Your task to perform on an android device: Open Reddit.com Image 0: 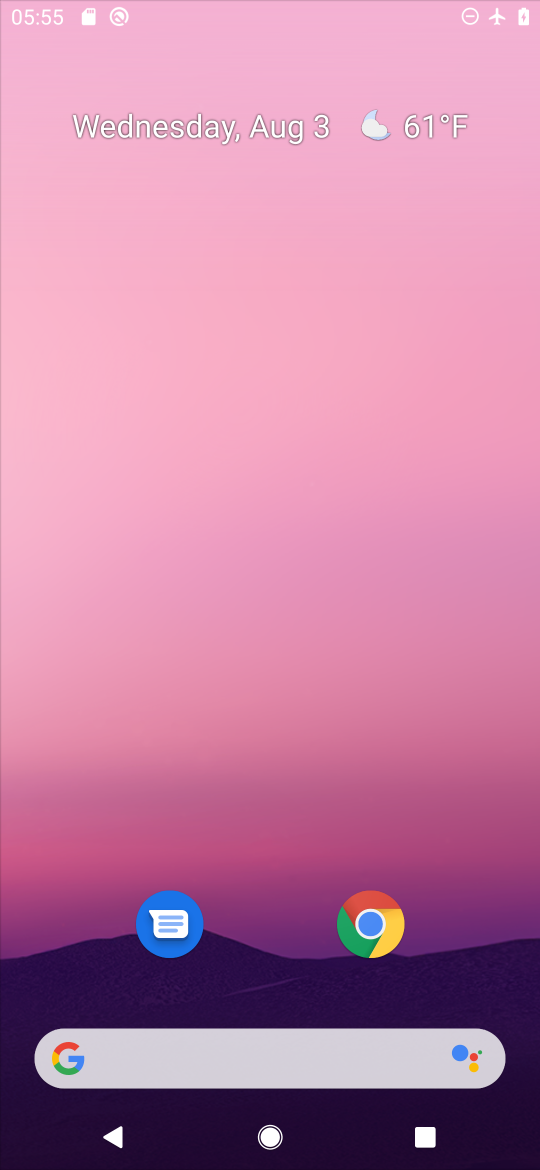
Step 0: press back button
Your task to perform on an android device: Open Reddit.com Image 1: 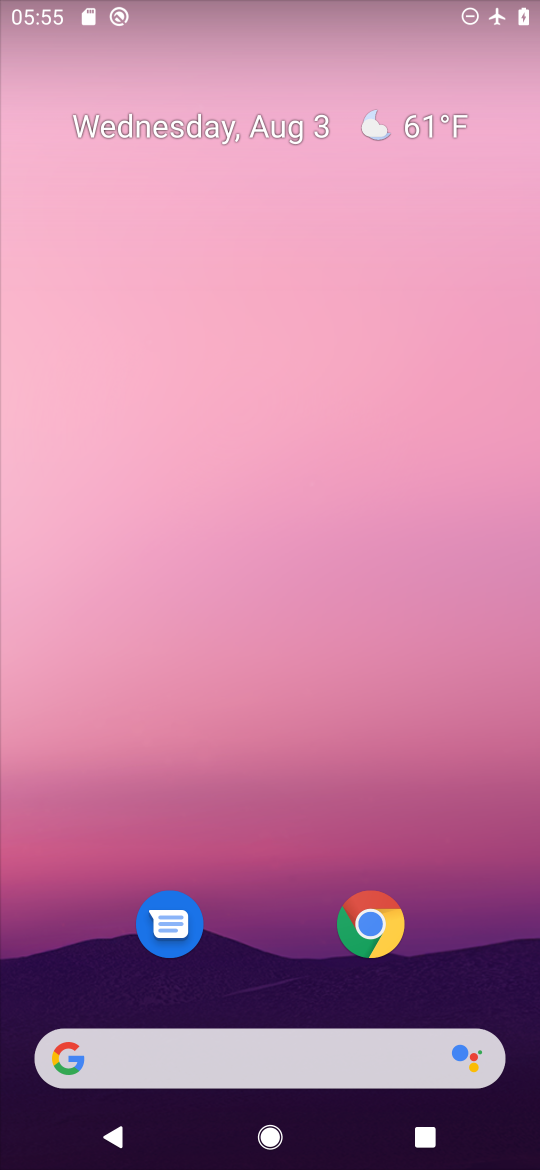
Step 1: click (361, 889)
Your task to perform on an android device: Open Reddit.com Image 2: 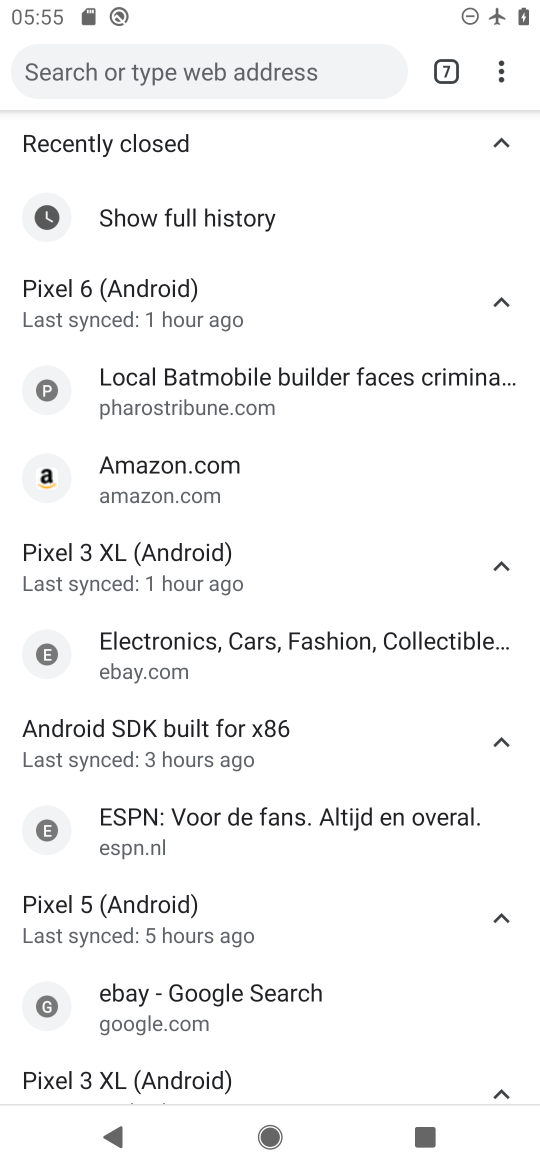
Step 2: click (442, 73)
Your task to perform on an android device: Open Reddit.com Image 3: 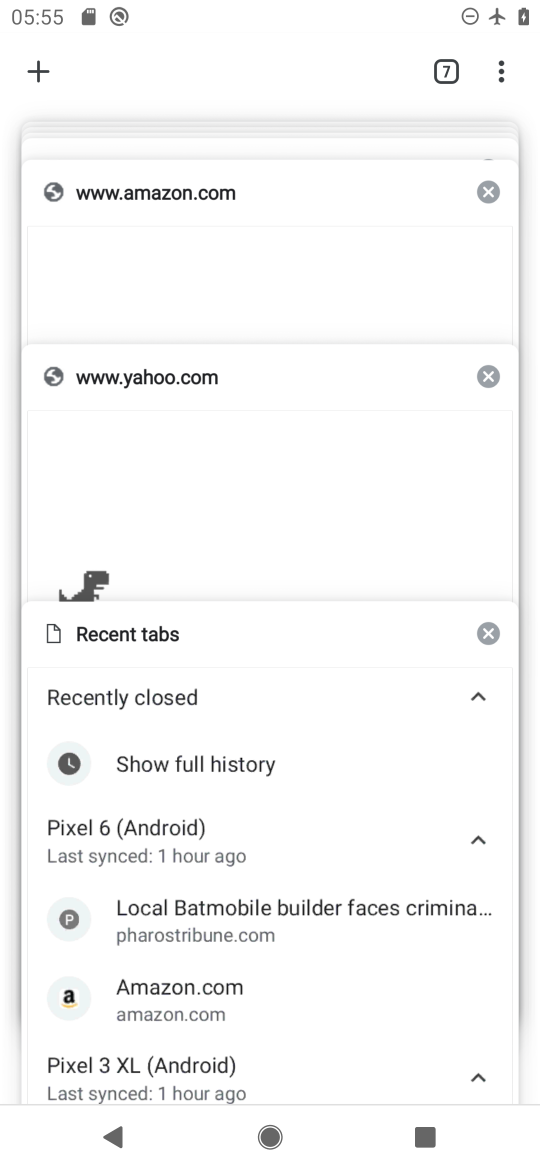
Step 3: click (33, 65)
Your task to perform on an android device: Open Reddit.com Image 4: 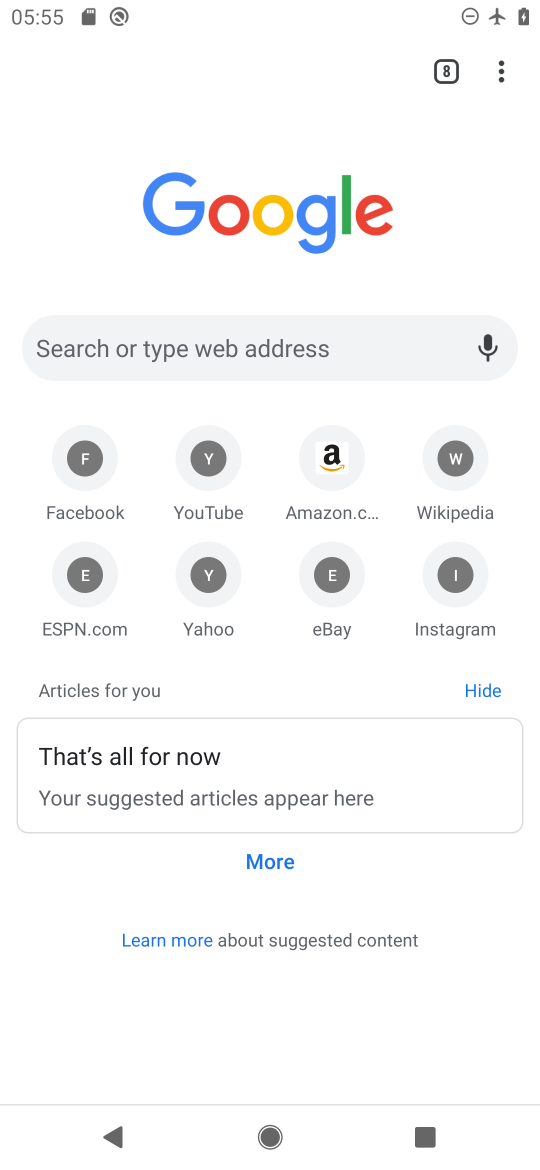
Step 4: click (232, 349)
Your task to perform on an android device: Open Reddit.com Image 5: 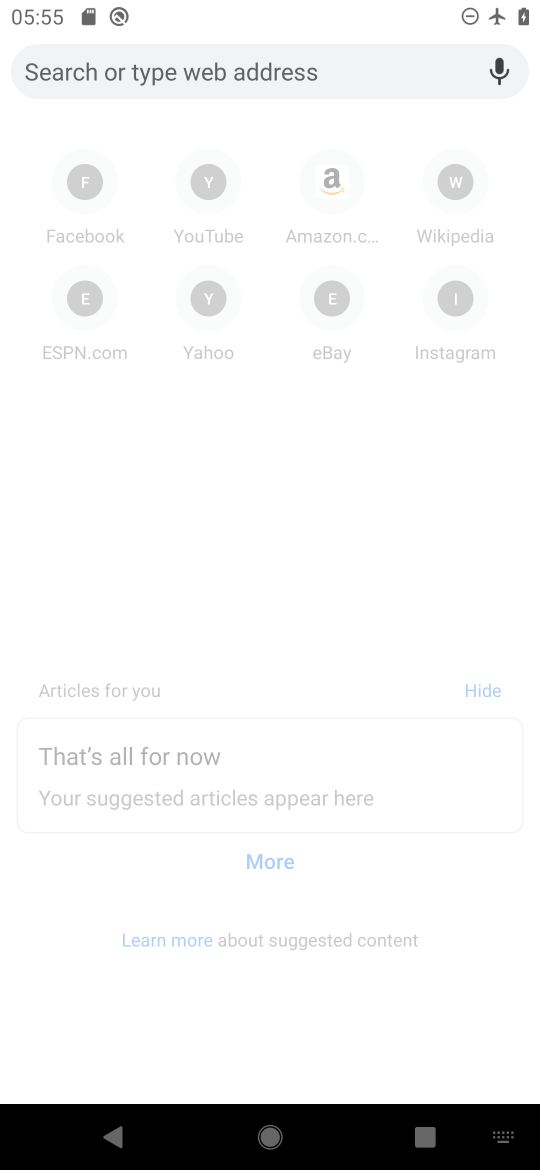
Step 5: type "Reddit.com"
Your task to perform on an android device: Open Reddit.com Image 6: 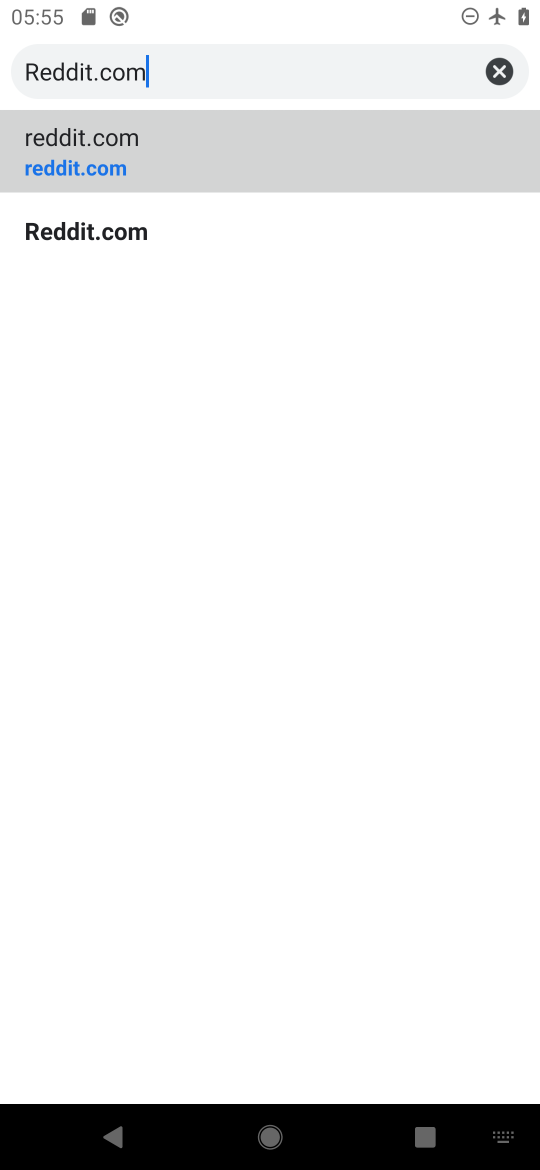
Step 6: click (303, 172)
Your task to perform on an android device: Open Reddit.com Image 7: 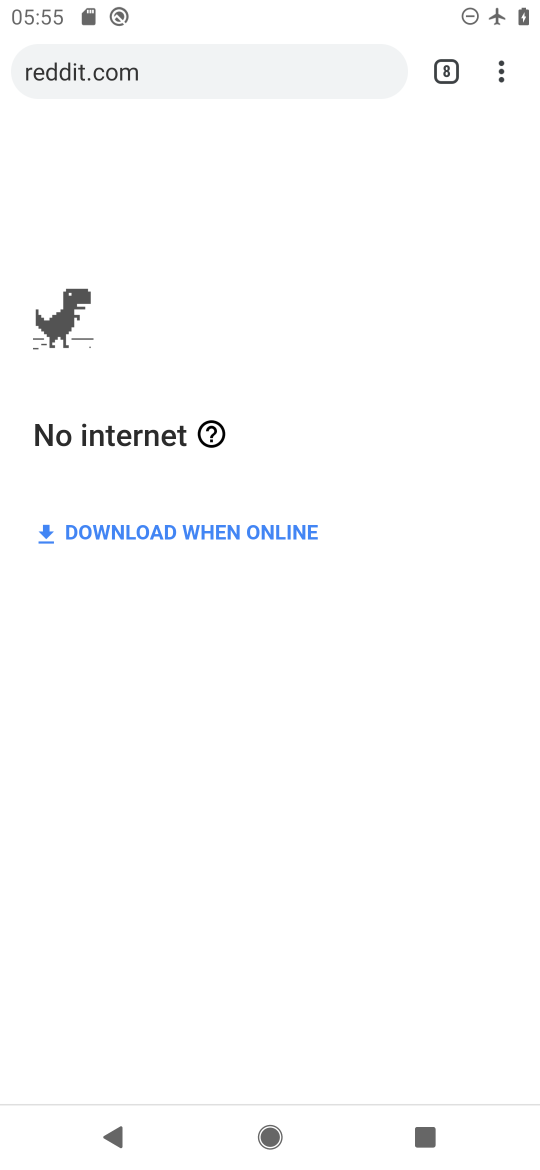
Step 7: task complete